Your task to perform on an android device: toggle priority inbox in the gmail app Image 0: 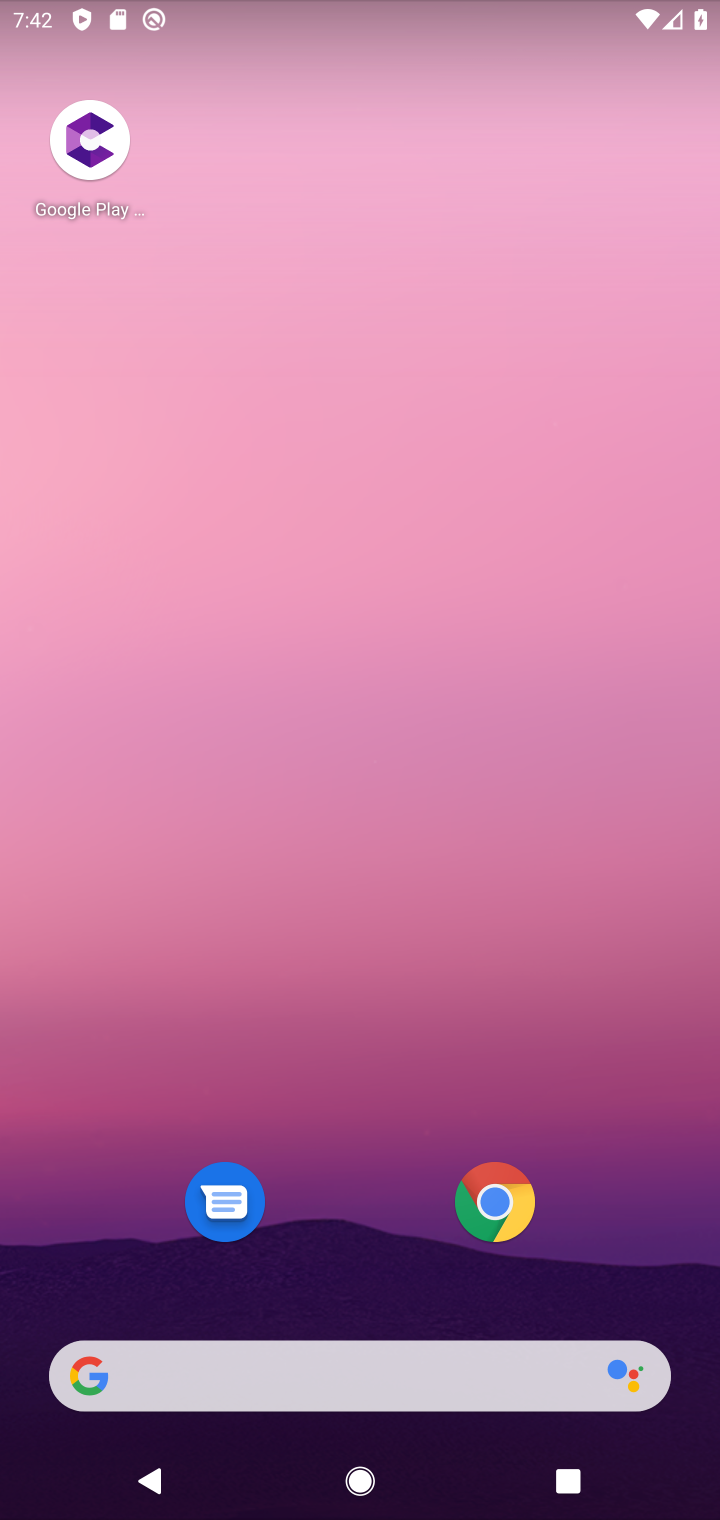
Step 0: drag from (281, 1358) to (385, 380)
Your task to perform on an android device: toggle priority inbox in the gmail app Image 1: 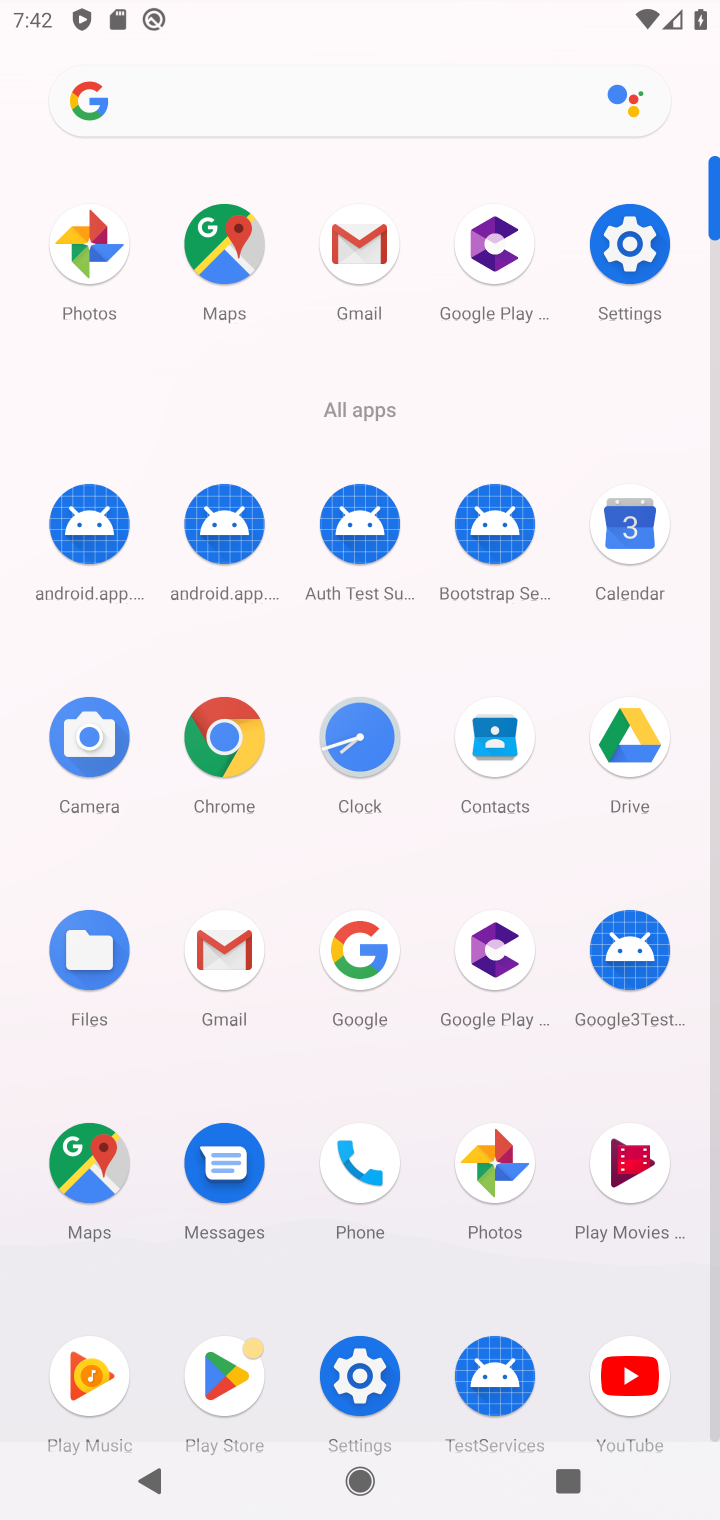
Step 1: click (360, 235)
Your task to perform on an android device: toggle priority inbox in the gmail app Image 2: 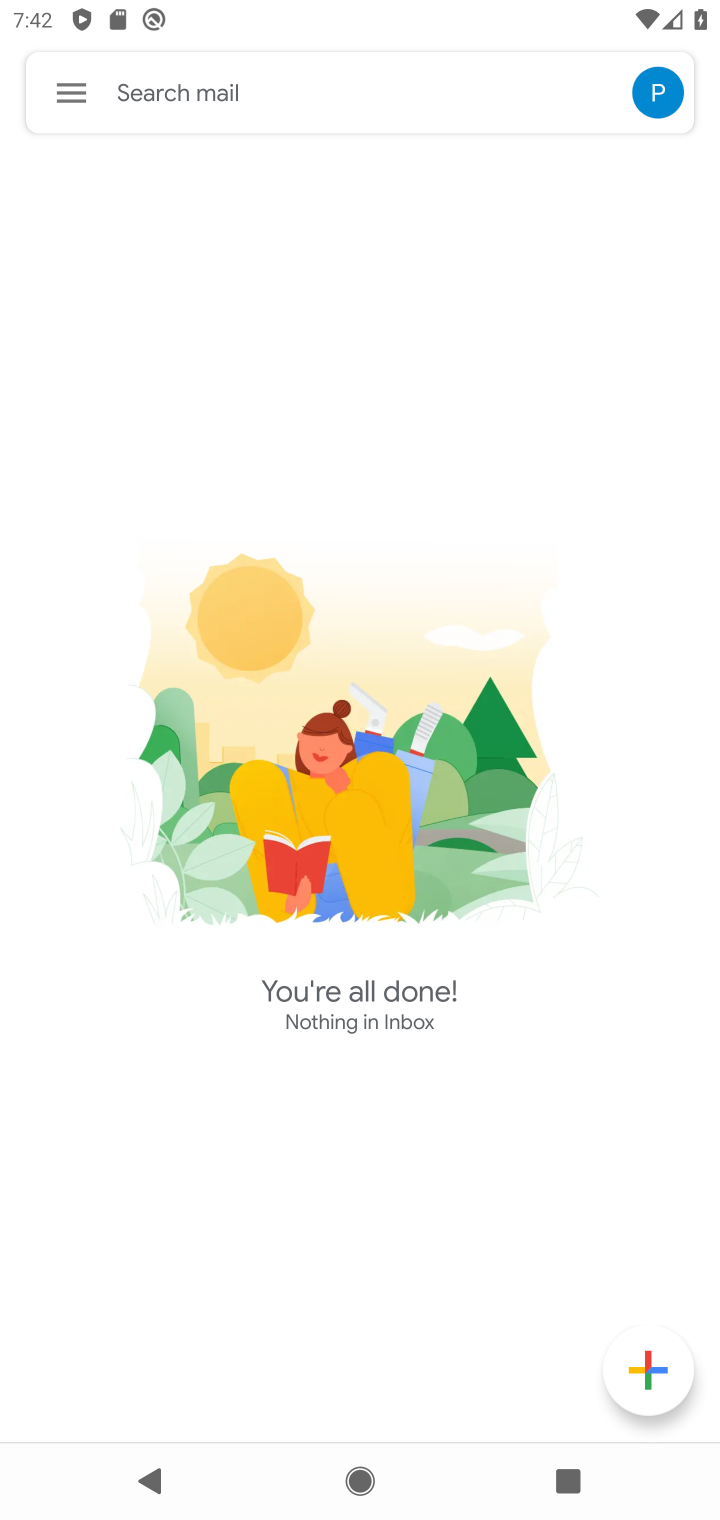
Step 2: click (75, 93)
Your task to perform on an android device: toggle priority inbox in the gmail app Image 3: 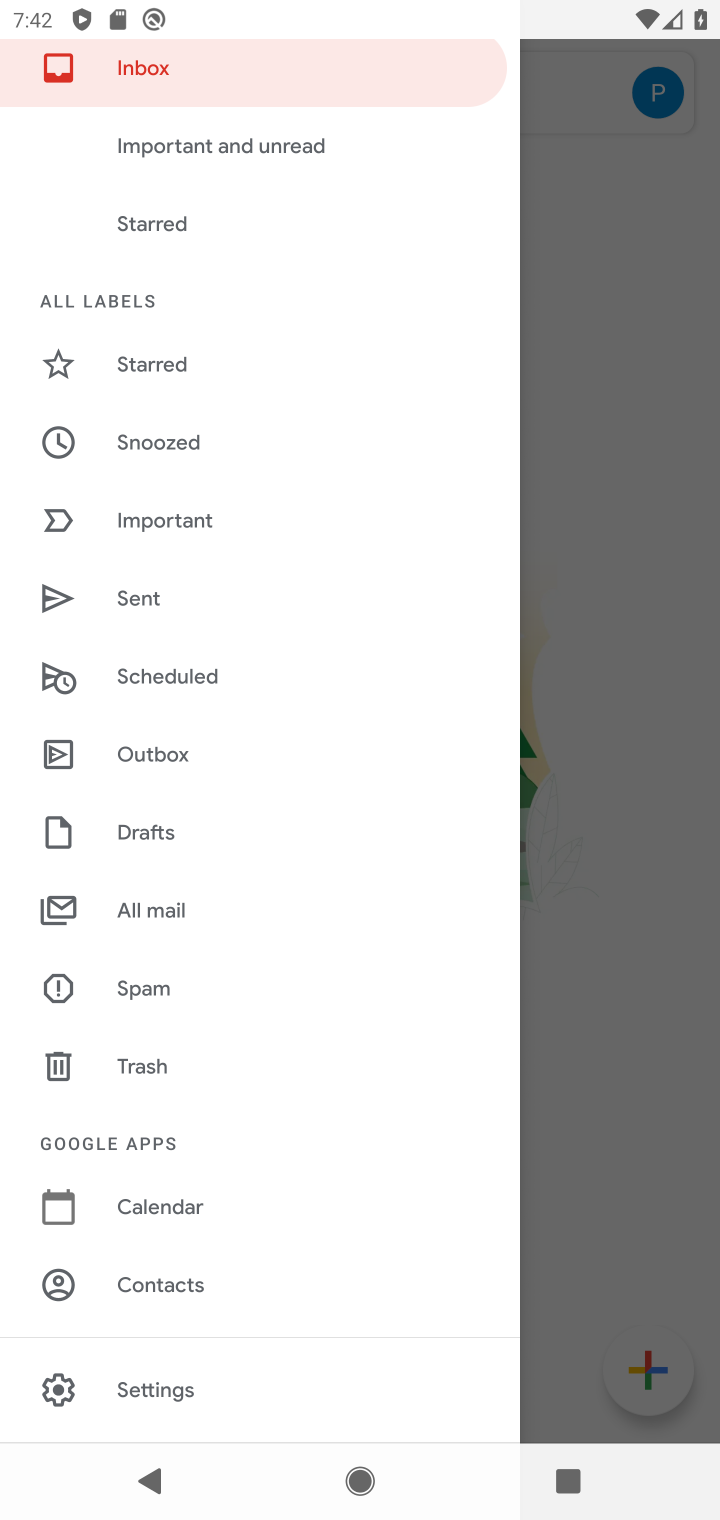
Step 3: click (149, 1383)
Your task to perform on an android device: toggle priority inbox in the gmail app Image 4: 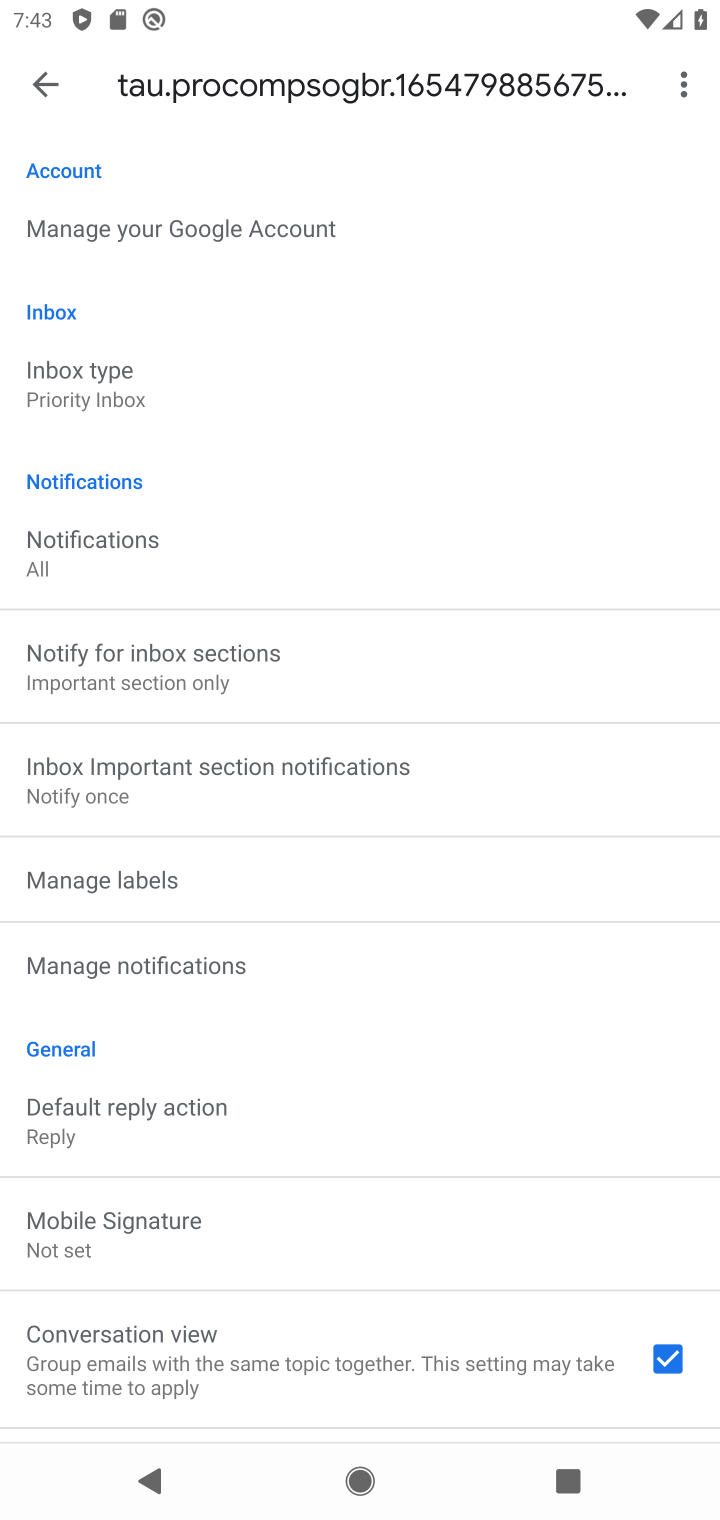
Step 4: click (118, 370)
Your task to perform on an android device: toggle priority inbox in the gmail app Image 5: 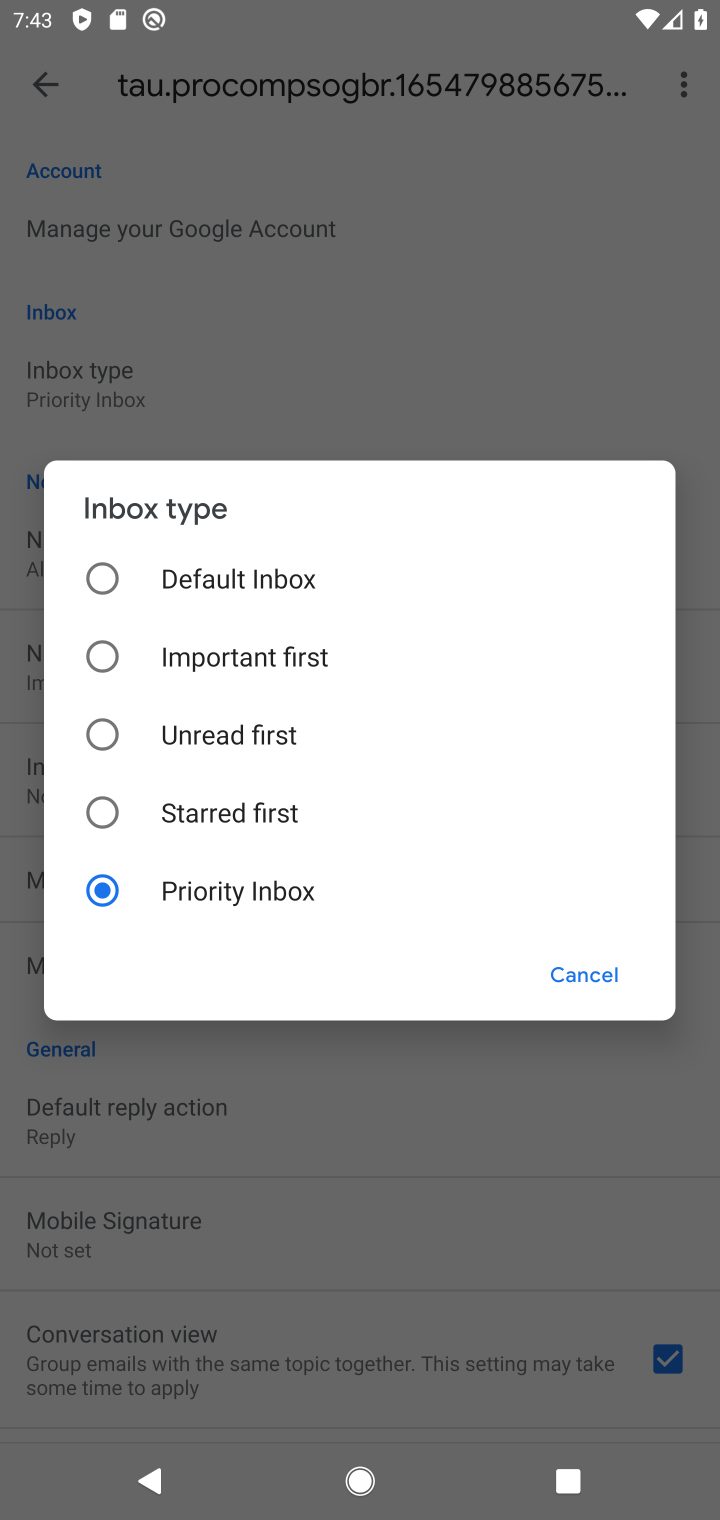
Step 5: click (110, 796)
Your task to perform on an android device: toggle priority inbox in the gmail app Image 6: 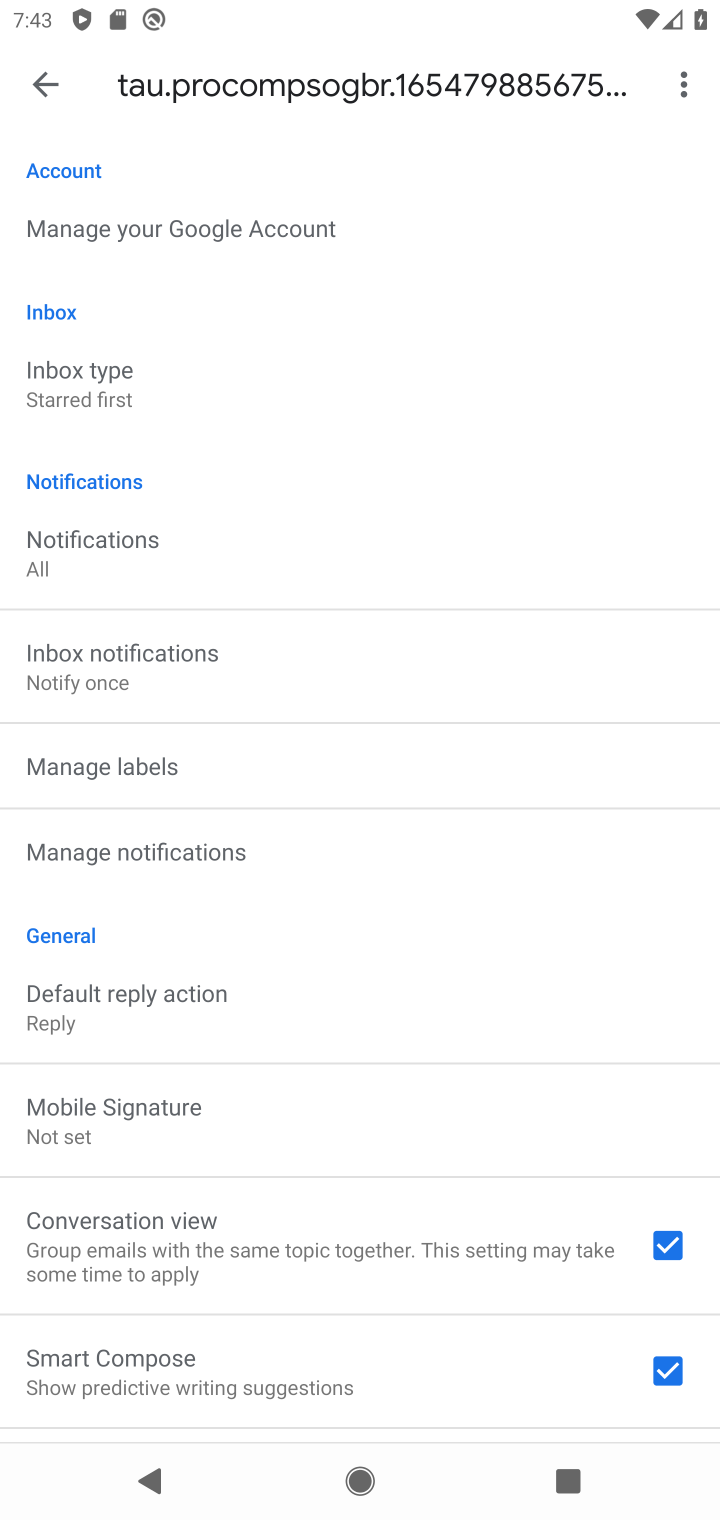
Step 6: task complete